Your task to perform on an android device: toggle sleep mode Image 0: 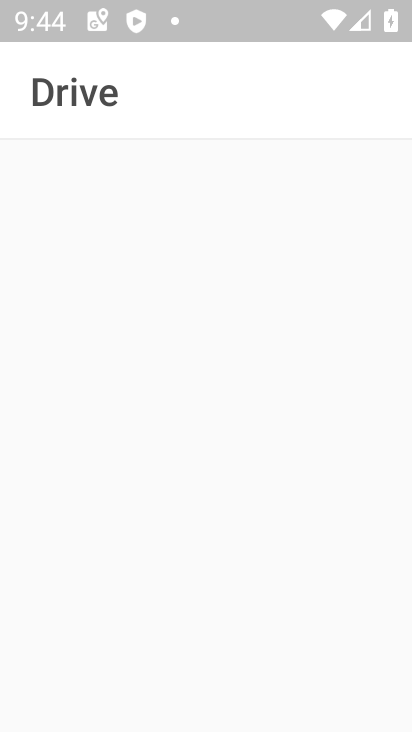
Step 0: drag from (303, 21) to (374, 694)
Your task to perform on an android device: toggle sleep mode Image 1: 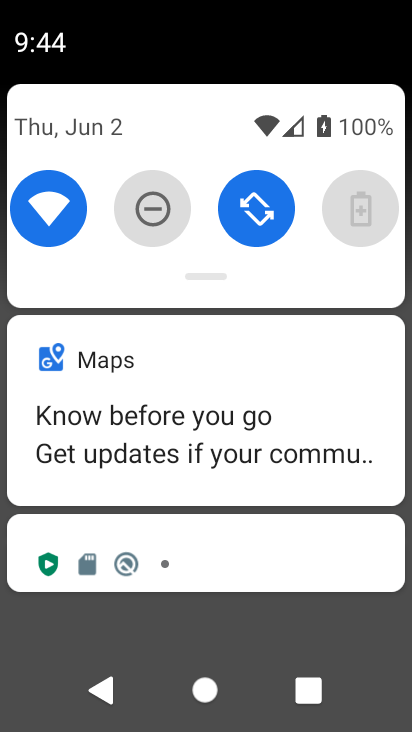
Step 1: drag from (210, 262) to (166, 669)
Your task to perform on an android device: toggle sleep mode Image 2: 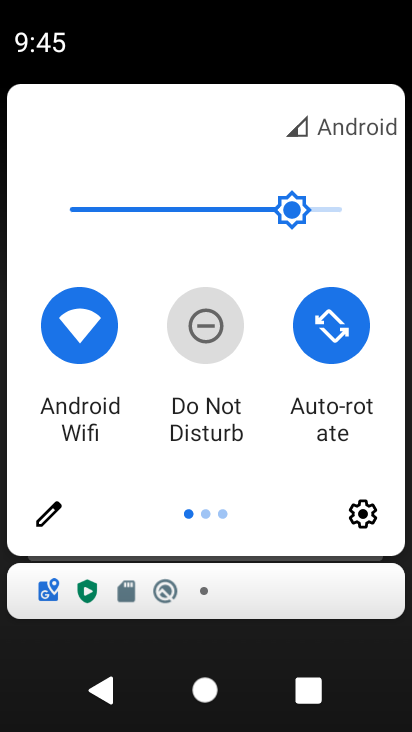
Step 2: click (41, 515)
Your task to perform on an android device: toggle sleep mode Image 3: 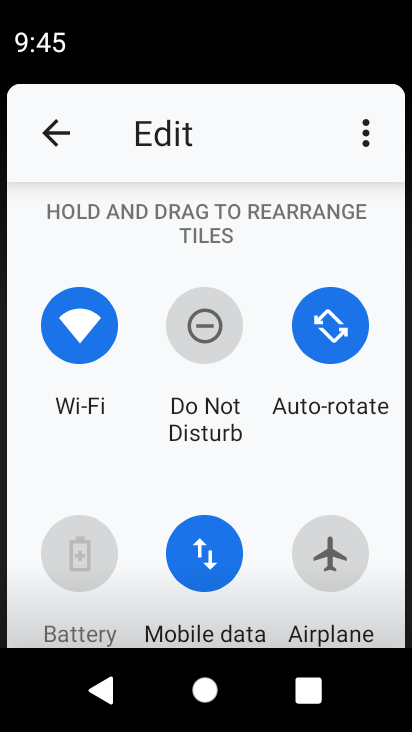
Step 3: task complete